Your task to perform on an android device: toggle pop-ups in chrome Image 0: 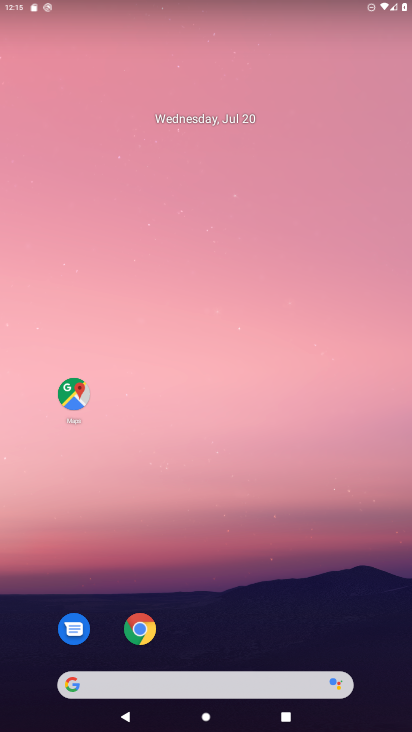
Step 0: drag from (216, 643) to (244, 240)
Your task to perform on an android device: toggle pop-ups in chrome Image 1: 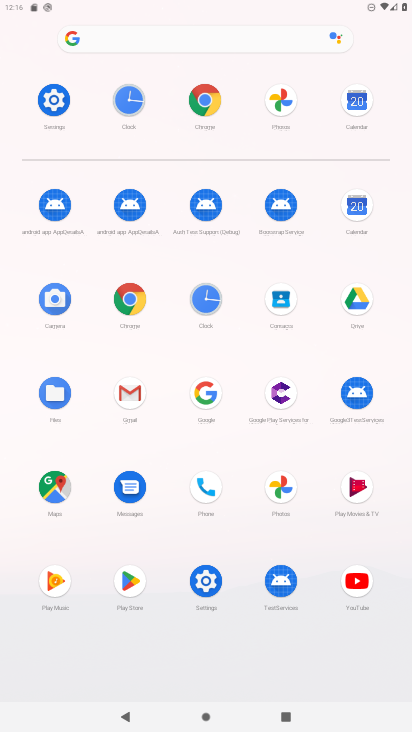
Step 1: click (119, 295)
Your task to perform on an android device: toggle pop-ups in chrome Image 2: 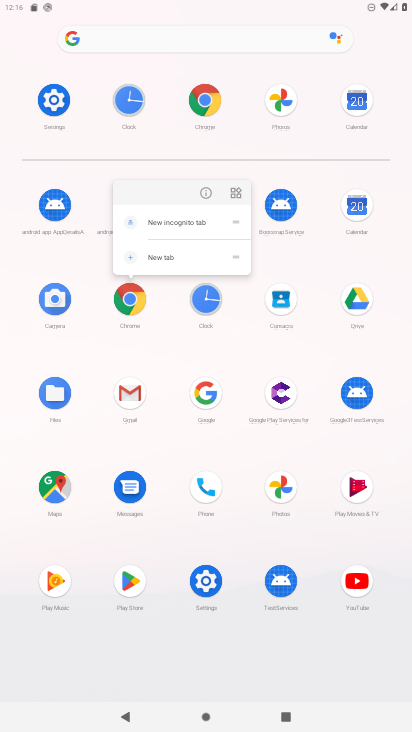
Step 2: click (117, 309)
Your task to perform on an android device: toggle pop-ups in chrome Image 3: 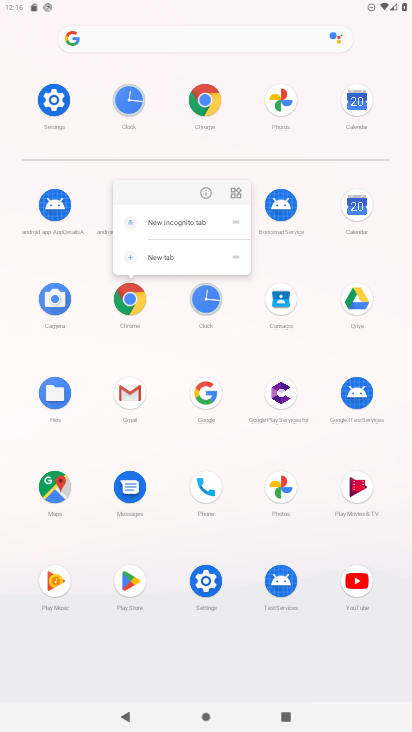
Step 3: click (209, 188)
Your task to perform on an android device: toggle pop-ups in chrome Image 4: 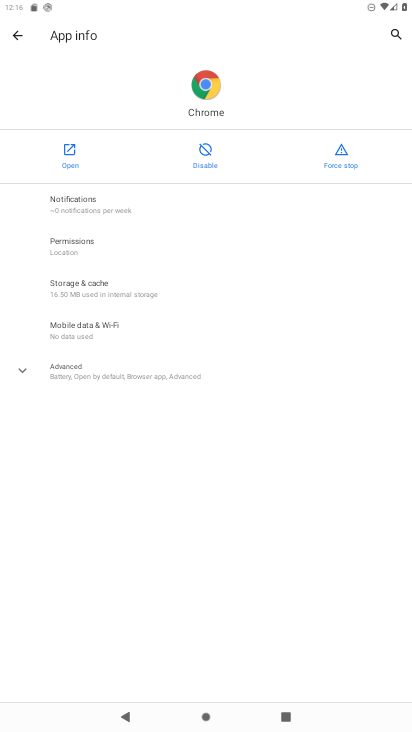
Step 4: click (69, 159)
Your task to perform on an android device: toggle pop-ups in chrome Image 5: 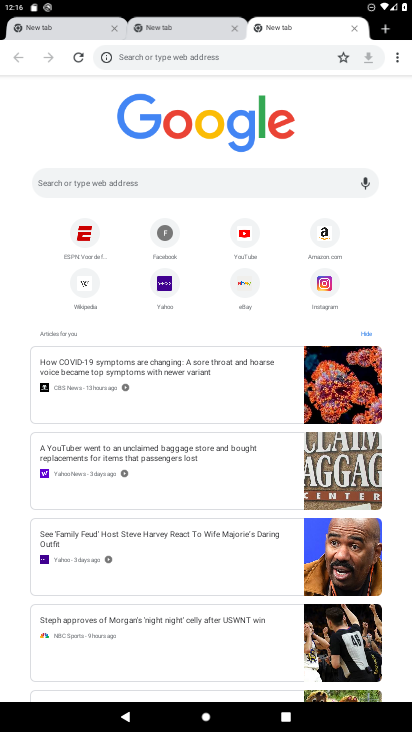
Step 5: drag from (399, 60) to (308, 266)
Your task to perform on an android device: toggle pop-ups in chrome Image 6: 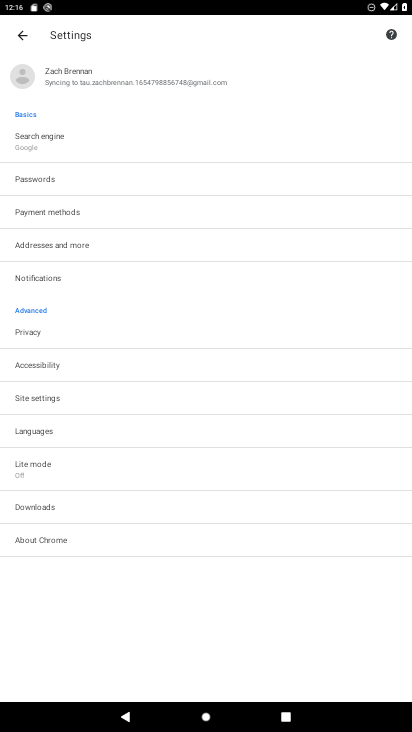
Step 6: drag from (273, 515) to (267, 125)
Your task to perform on an android device: toggle pop-ups in chrome Image 7: 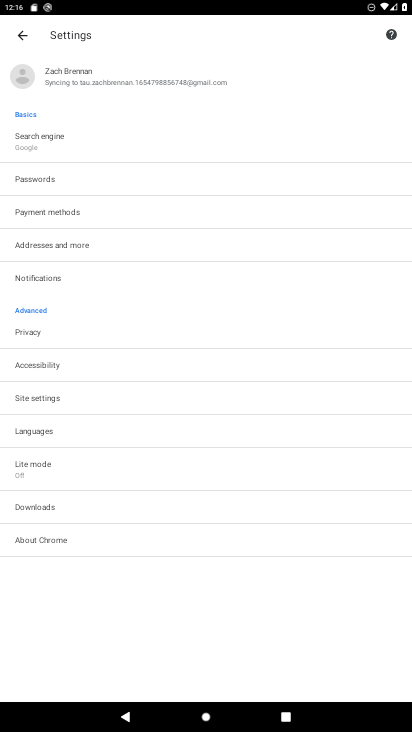
Step 7: click (70, 406)
Your task to perform on an android device: toggle pop-ups in chrome Image 8: 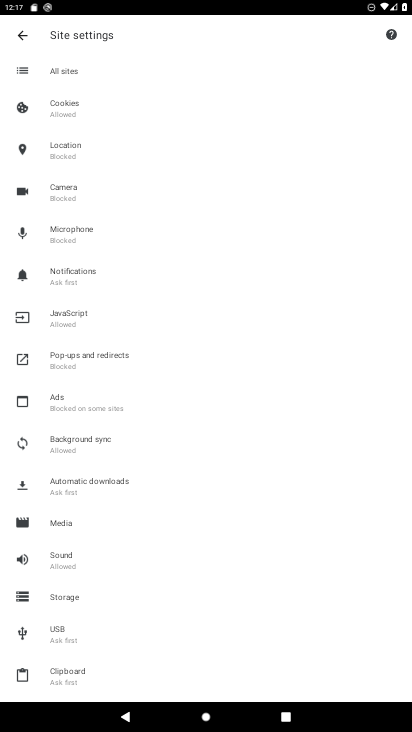
Step 8: click (108, 353)
Your task to perform on an android device: toggle pop-ups in chrome Image 9: 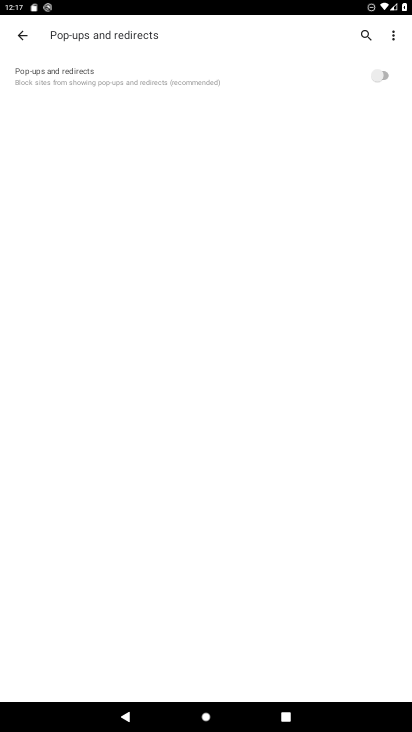
Step 9: drag from (240, 469) to (293, 163)
Your task to perform on an android device: toggle pop-ups in chrome Image 10: 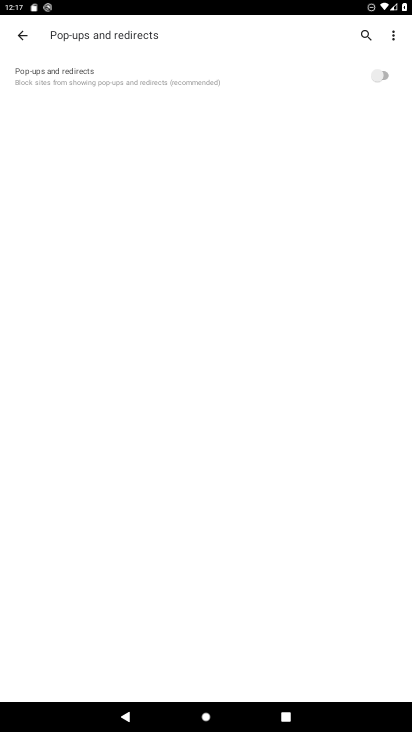
Step 10: click (224, 80)
Your task to perform on an android device: toggle pop-ups in chrome Image 11: 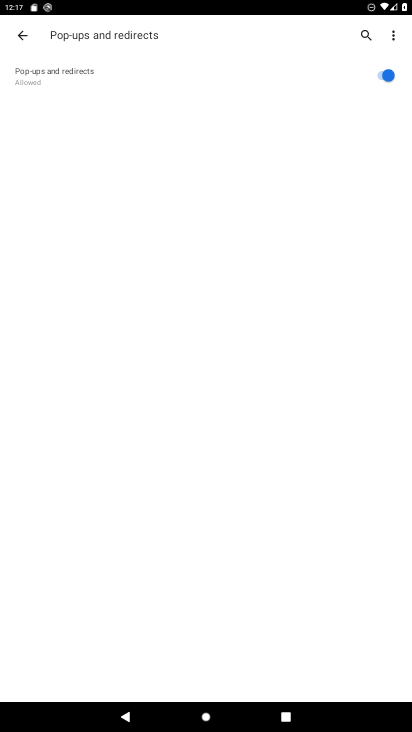
Step 11: task complete